Your task to perform on an android device: set the timer Image 0: 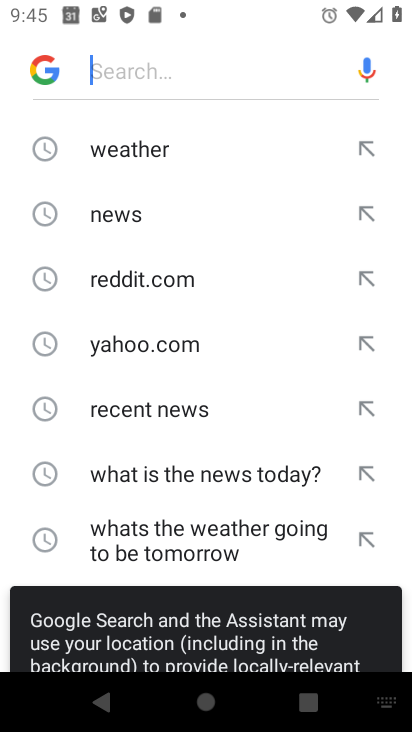
Step 0: press home button
Your task to perform on an android device: set the timer Image 1: 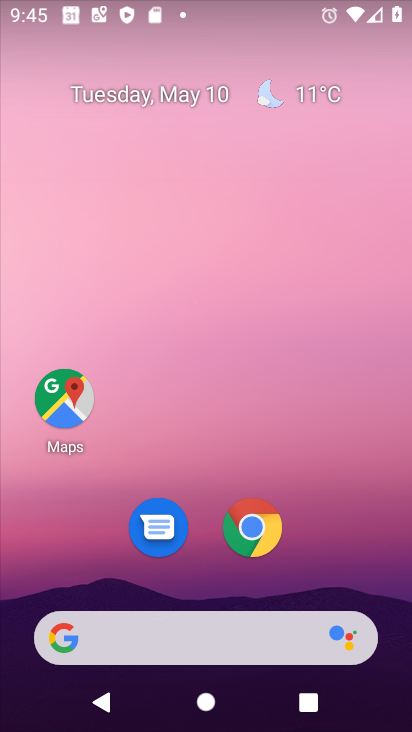
Step 1: drag from (299, 511) to (256, 98)
Your task to perform on an android device: set the timer Image 2: 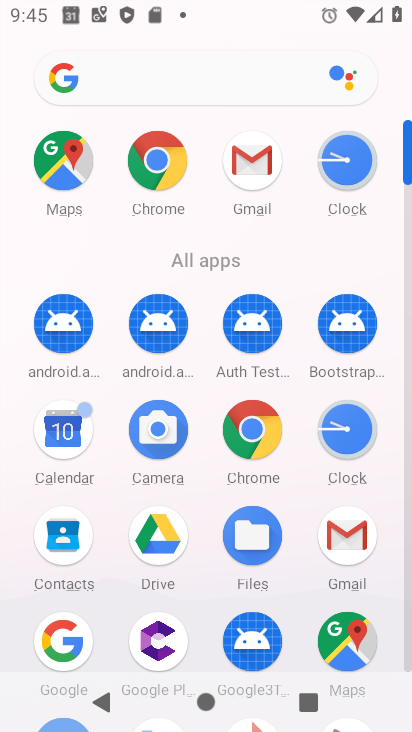
Step 2: click (327, 438)
Your task to perform on an android device: set the timer Image 3: 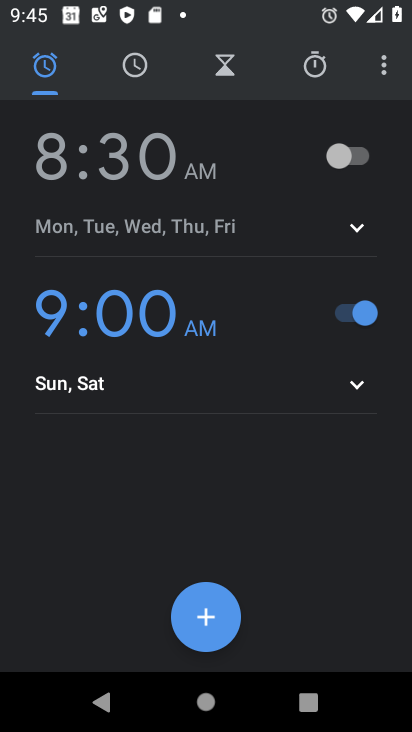
Step 3: click (226, 72)
Your task to perform on an android device: set the timer Image 4: 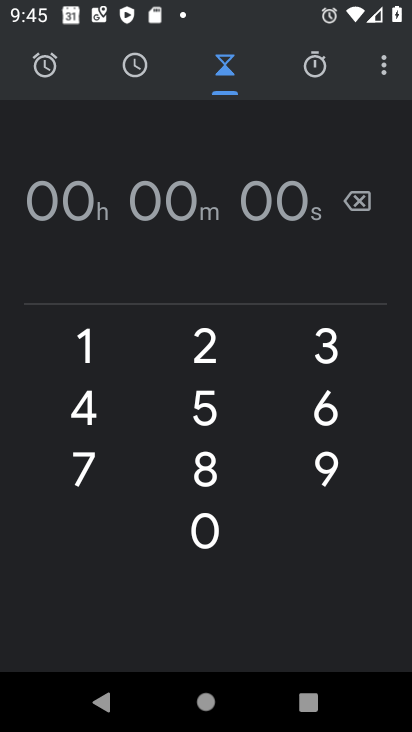
Step 4: click (222, 406)
Your task to perform on an android device: set the timer Image 5: 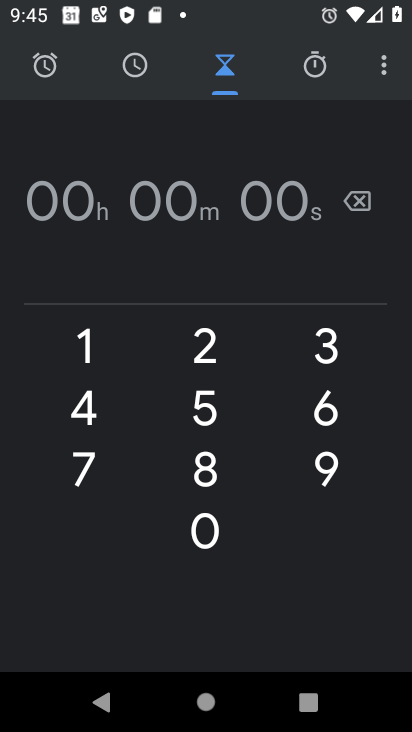
Step 5: click (222, 406)
Your task to perform on an android device: set the timer Image 6: 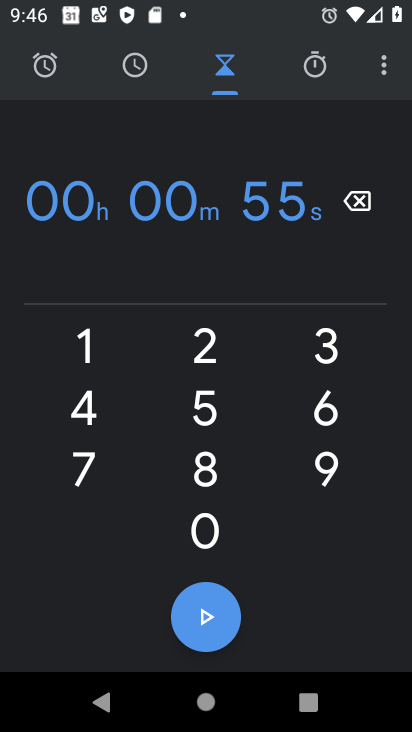
Step 6: click (222, 406)
Your task to perform on an android device: set the timer Image 7: 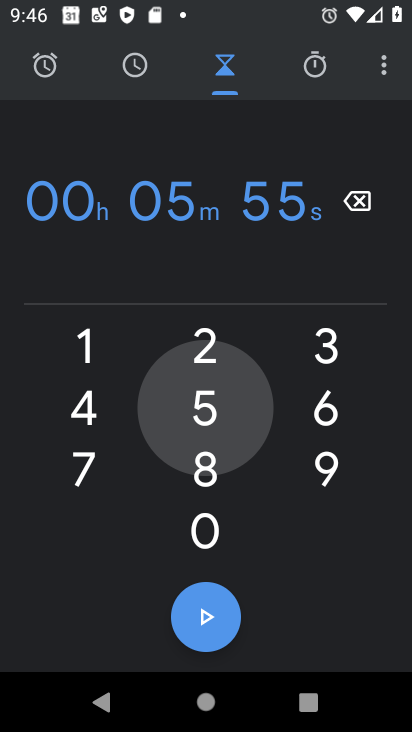
Step 7: click (222, 406)
Your task to perform on an android device: set the timer Image 8: 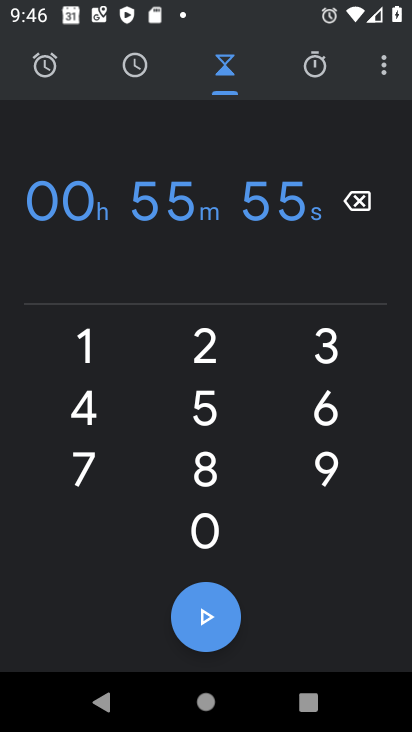
Step 8: click (213, 623)
Your task to perform on an android device: set the timer Image 9: 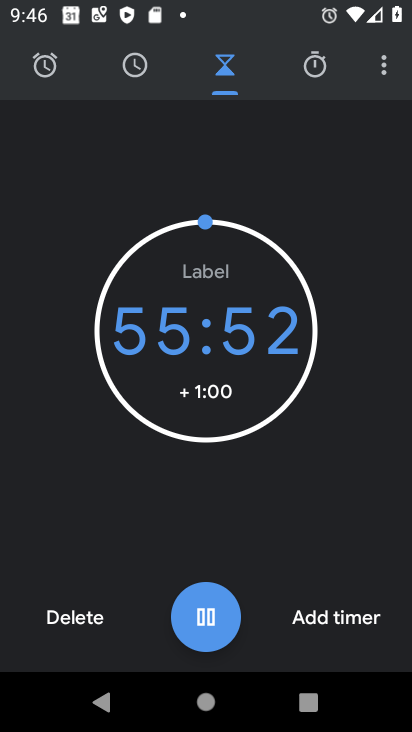
Step 9: task complete